Your task to perform on an android device: Turn on the flashlight Image 0: 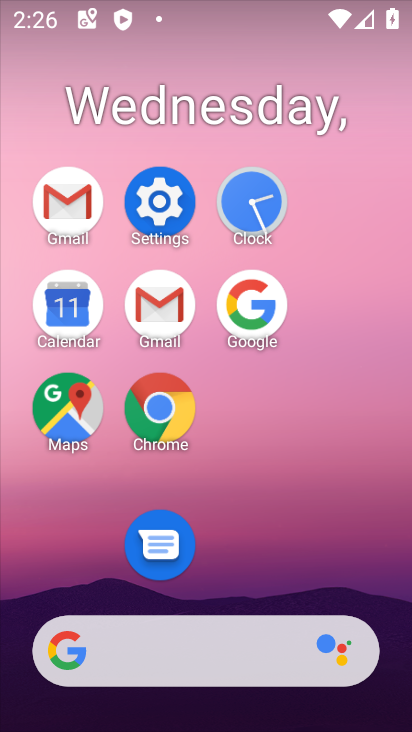
Step 0: drag from (270, 35) to (234, 453)
Your task to perform on an android device: Turn on the flashlight Image 1: 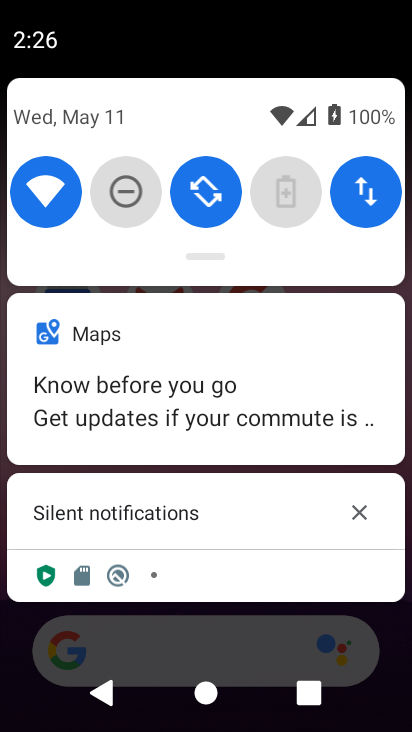
Step 1: task complete